Your task to perform on an android device: Go to CNN.com Image 0: 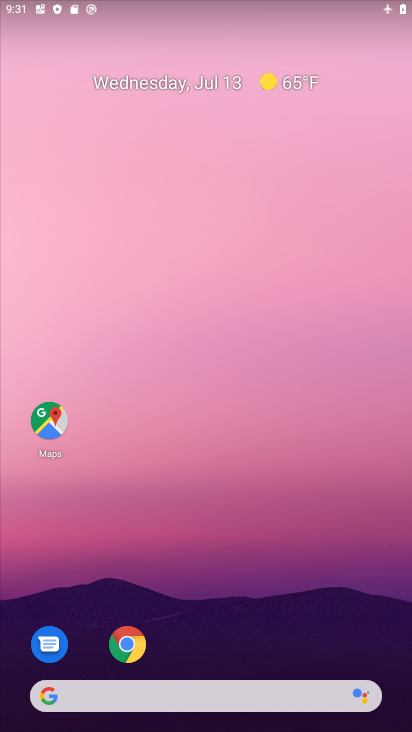
Step 0: drag from (226, 575) to (203, 65)
Your task to perform on an android device: Go to CNN.com Image 1: 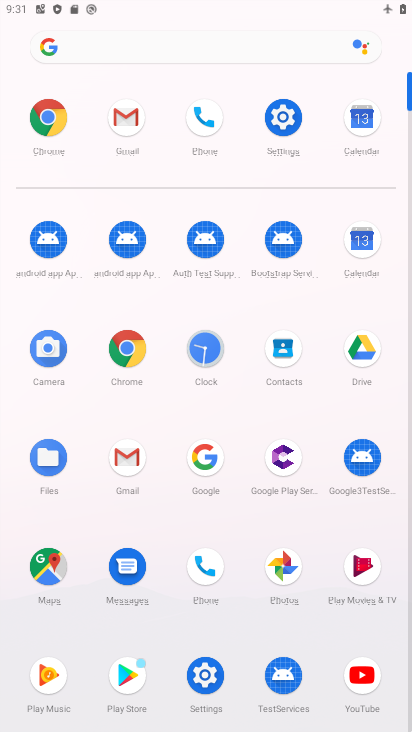
Step 1: click (45, 118)
Your task to perform on an android device: Go to CNN.com Image 2: 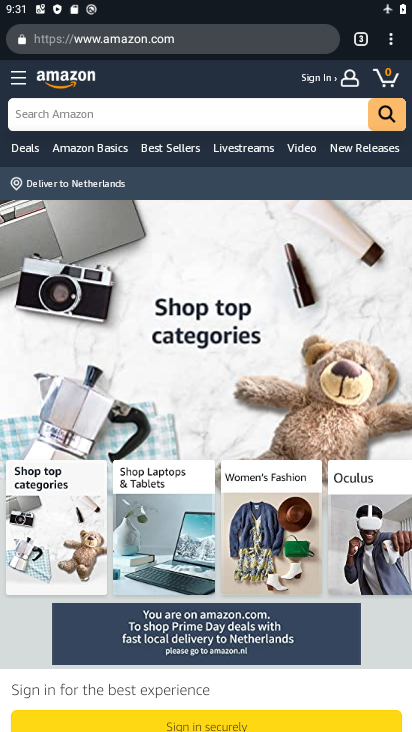
Step 2: click (202, 44)
Your task to perform on an android device: Go to CNN.com Image 3: 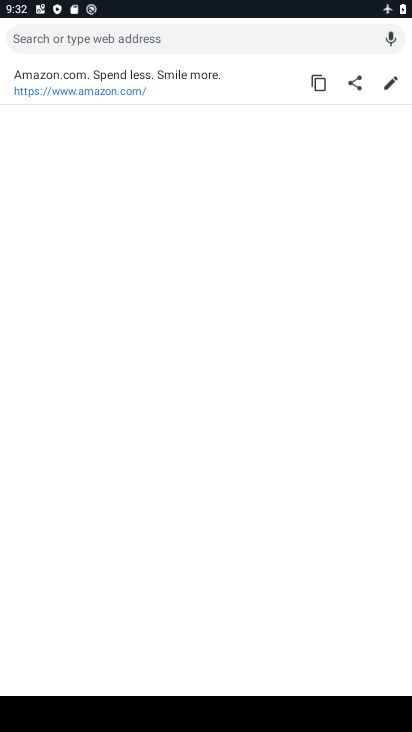
Step 3: type "CNN.com"
Your task to perform on an android device: Go to CNN.com Image 4: 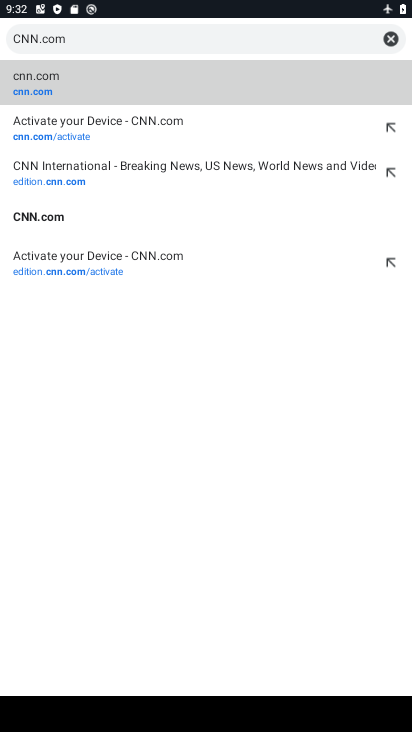
Step 4: press enter
Your task to perform on an android device: Go to CNN.com Image 5: 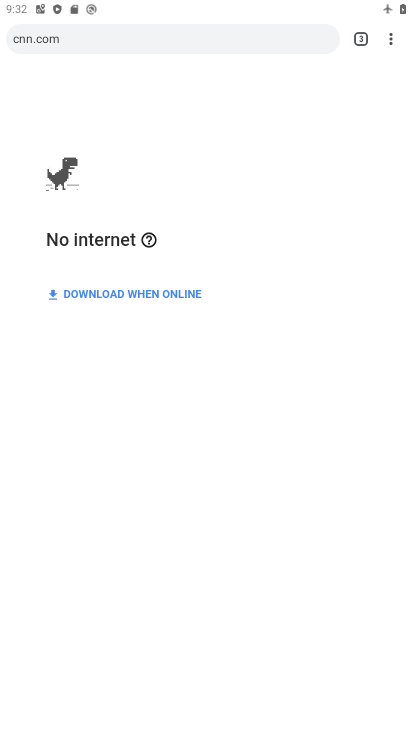
Step 5: task complete